Your task to perform on an android device: toggle improve location accuracy Image 0: 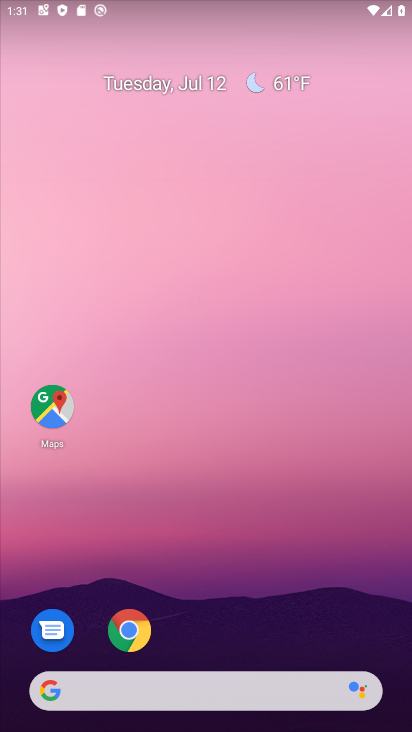
Step 0: drag from (242, 637) to (272, 204)
Your task to perform on an android device: toggle improve location accuracy Image 1: 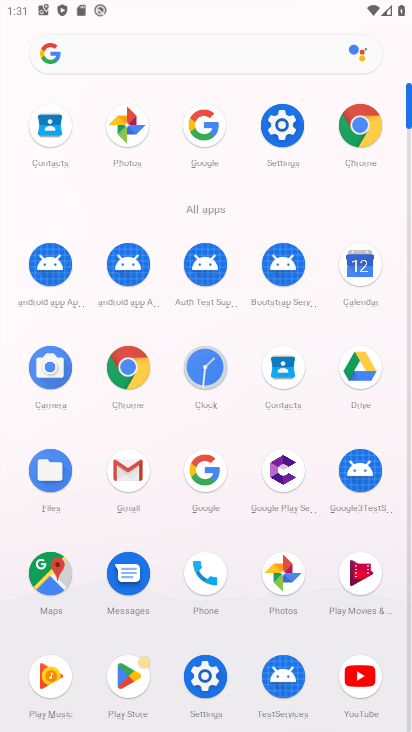
Step 1: click (272, 154)
Your task to perform on an android device: toggle improve location accuracy Image 2: 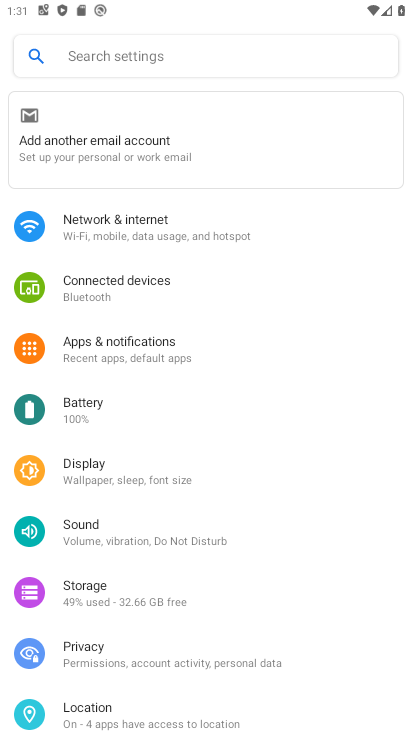
Step 2: click (124, 706)
Your task to perform on an android device: toggle improve location accuracy Image 3: 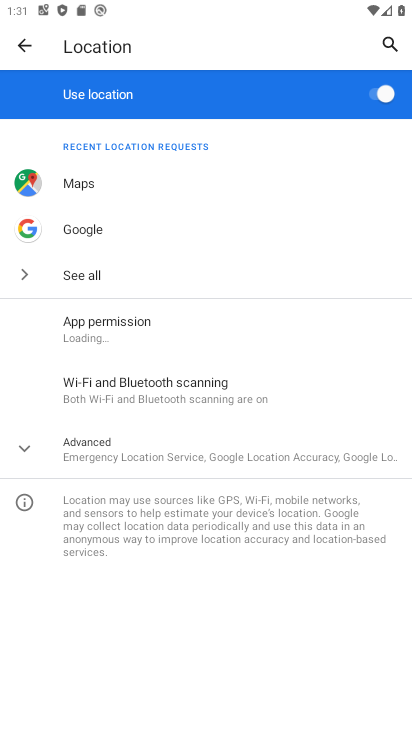
Step 3: click (137, 446)
Your task to perform on an android device: toggle improve location accuracy Image 4: 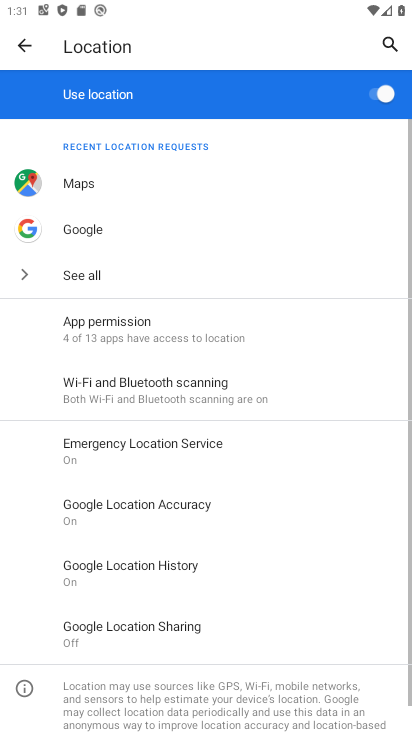
Step 4: click (186, 513)
Your task to perform on an android device: toggle improve location accuracy Image 5: 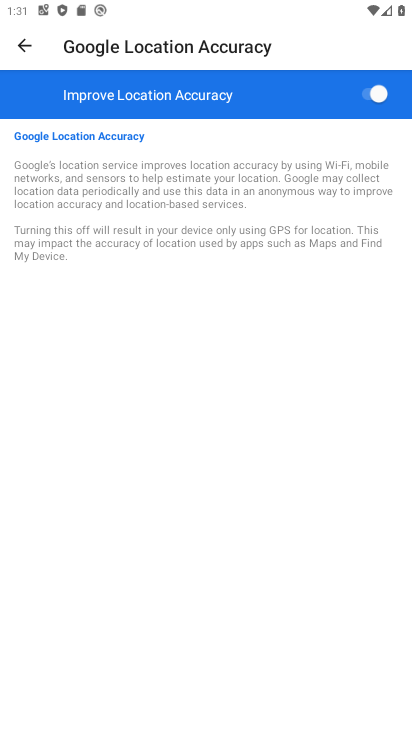
Step 5: click (377, 97)
Your task to perform on an android device: toggle improve location accuracy Image 6: 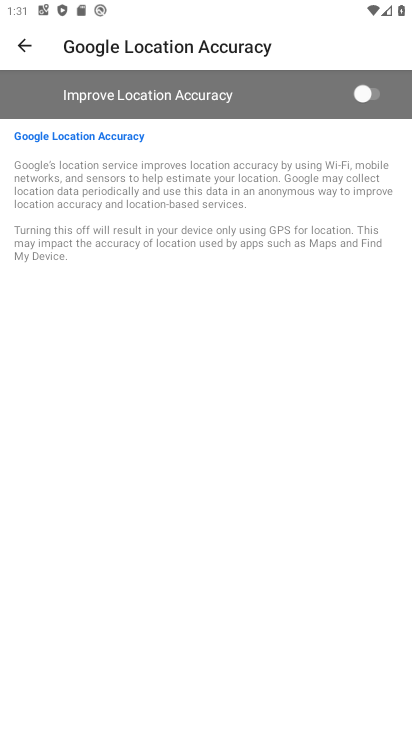
Step 6: task complete